Your task to perform on an android device: turn on javascript in the chrome app Image 0: 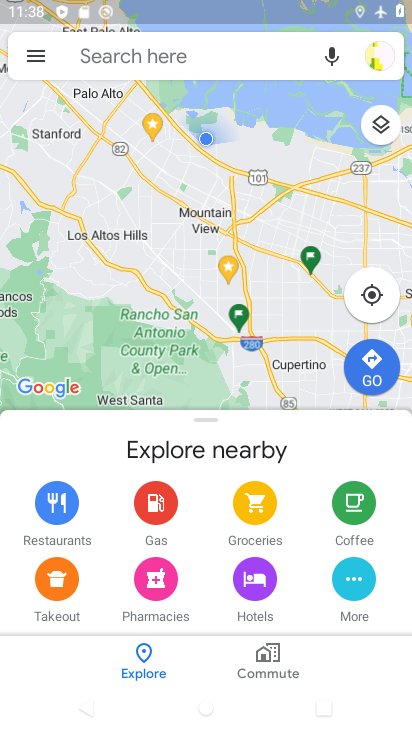
Step 0: press home button
Your task to perform on an android device: turn on javascript in the chrome app Image 1: 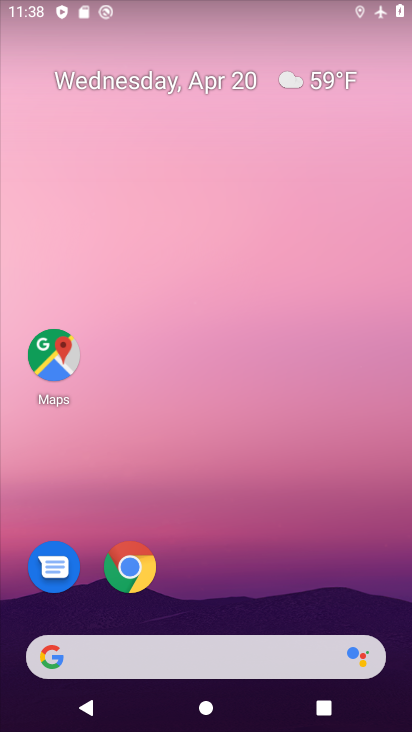
Step 1: click (126, 580)
Your task to perform on an android device: turn on javascript in the chrome app Image 2: 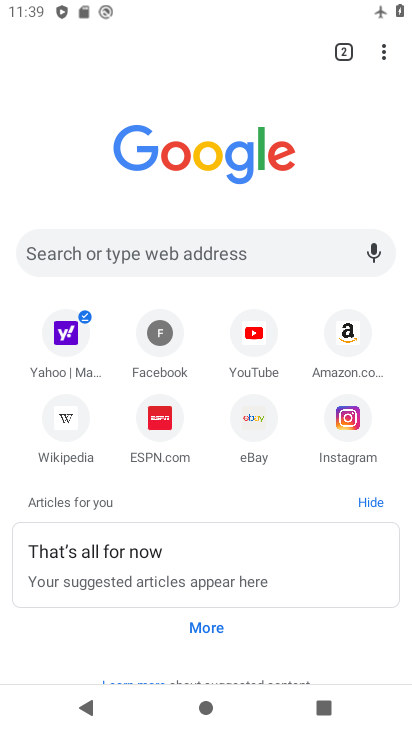
Step 2: click (376, 43)
Your task to perform on an android device: turn on javascript in the chrome app Image 3: 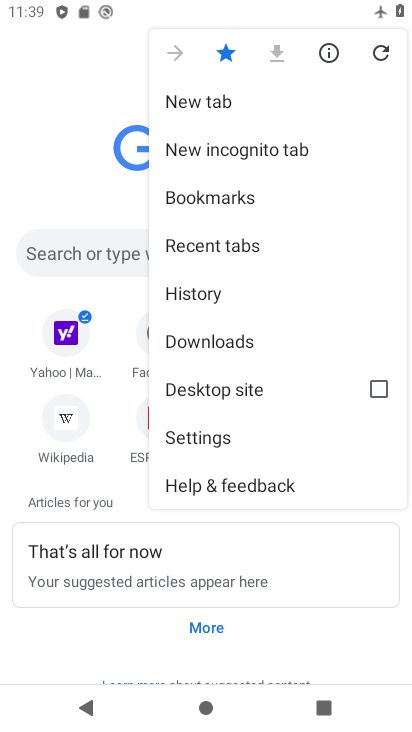
Step 3: click (203, 437)
Your task to perform on an android device: turn on javascript in the chrome app Image 4: 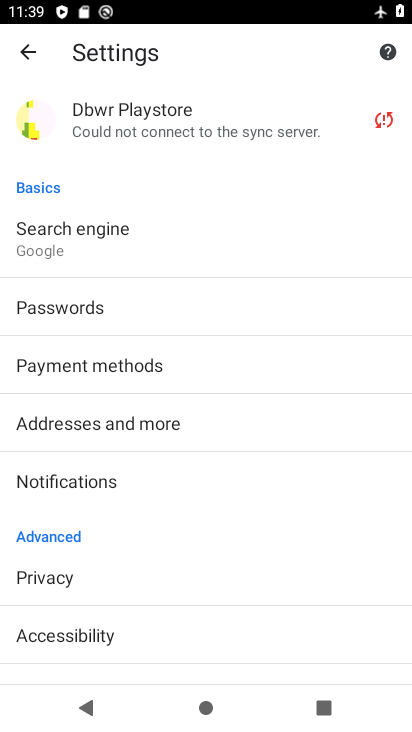
Step 4: drag from (104, 592) to (95, 487)
Your task to perform on an android device: turn on javascript in the chrome app Image 5: 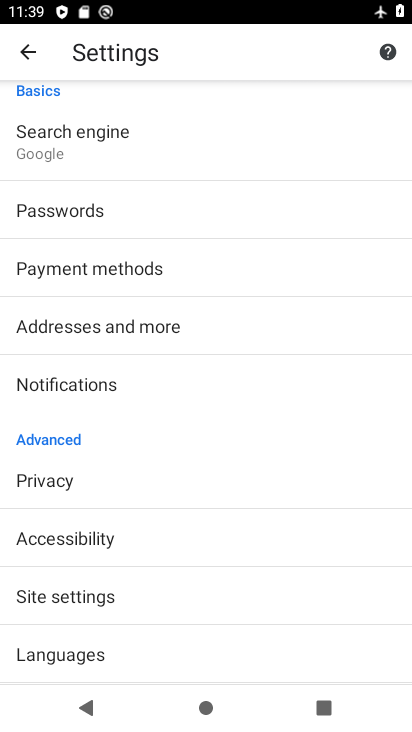
Step 5: click (99, 585)
Your task to perform on an android device: turn on javascript in the chrome app Image 6: 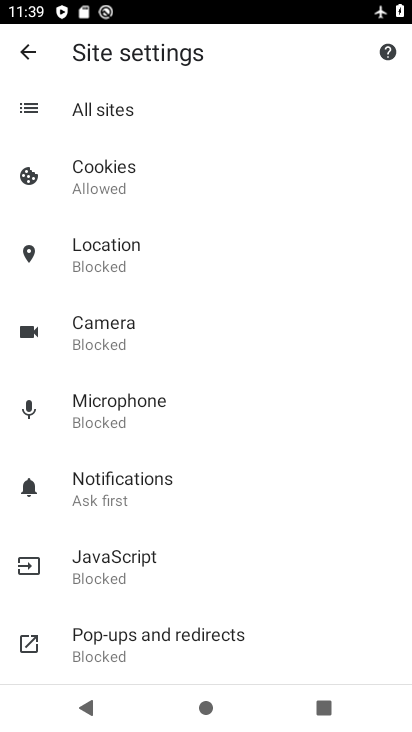
Step 6: click (105, 570)
Your task to perform on an android device: turn on javascript in the chrome app Image 7: 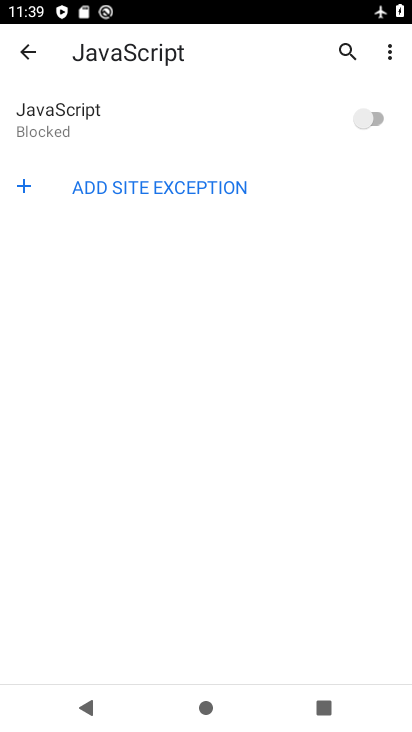
Step 7: click (356, 103)
Your task to perform on an android device: turn on javascript in the chrome app Image 8: 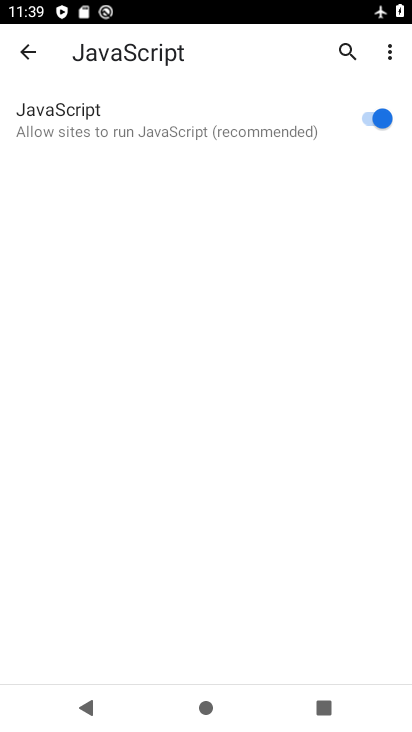
Step 8: task complete